Your task to perform on an android device: What's the weather going to be tomorrow? Image 0: 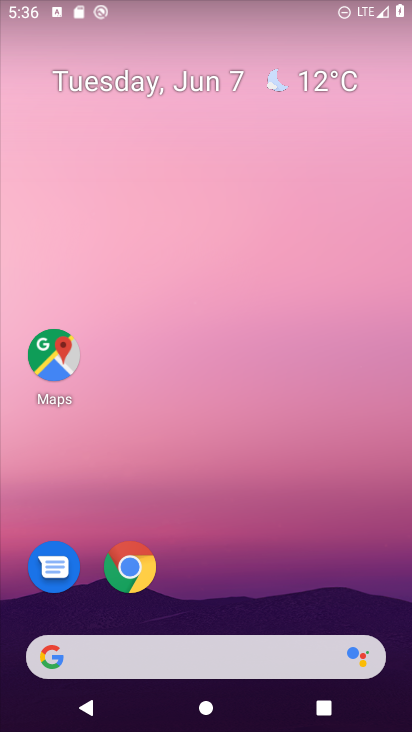
Step 0: drag from (274, 640) to (262, 3)
Your task to perform on an android device: What's the weather going to be tomorrow? Image 1: 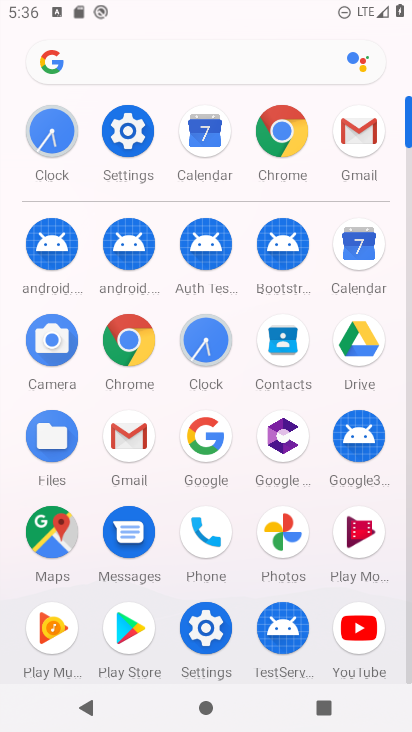
Step 1: press home button
Your task to perform on an android device: What's the weather going to be tomorrow? Image 2: 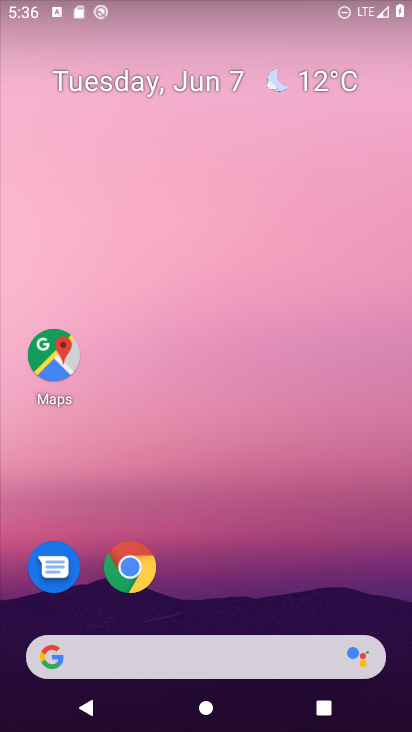
Step 2: drag from (10, 213) to (407, 265)
Your task to perform on an android device: What's the weather going to be tomorrow? Image 3: 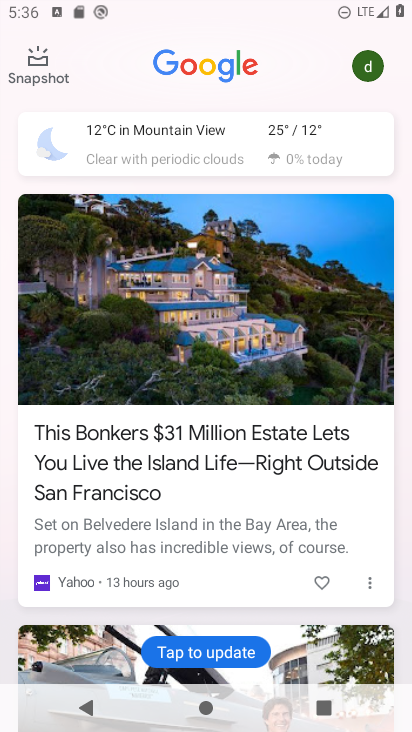
Step 3: click (235, 151)
Your task to perform on an android device: What's the weather going to be tomorrow? Image 4: 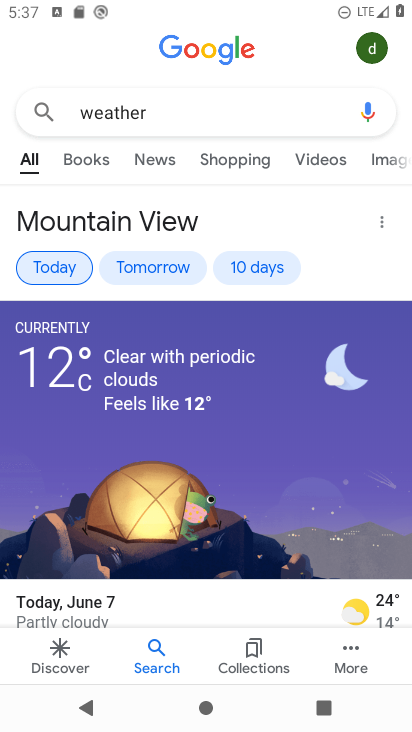
Step 4: click (168, 269)
Your task to perform on an android device: What's the weather going to be tomorrow? Image 5: 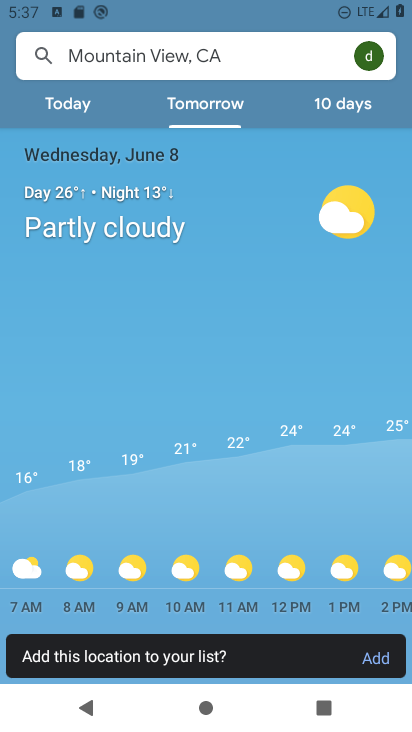
Step 5: task complete